Your task to perform on an android device: Search for Mexican restaurants on Maps Image 0: 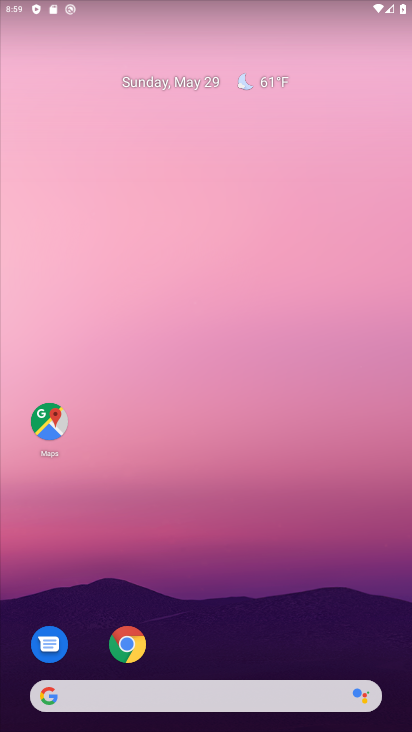
Step 0: drag from (242, 590) to (189, 47)
Your task to perform on an android device: Search for Mexican restaurants on Maps Image 1: 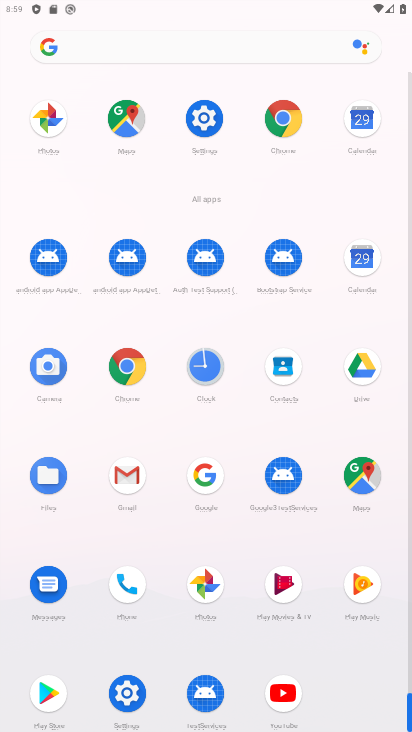
Step 1: drag from (6, 624) to (7, 255)
Your task to perform on an android device: Search for Mexican restaurants on Maps Image 2: 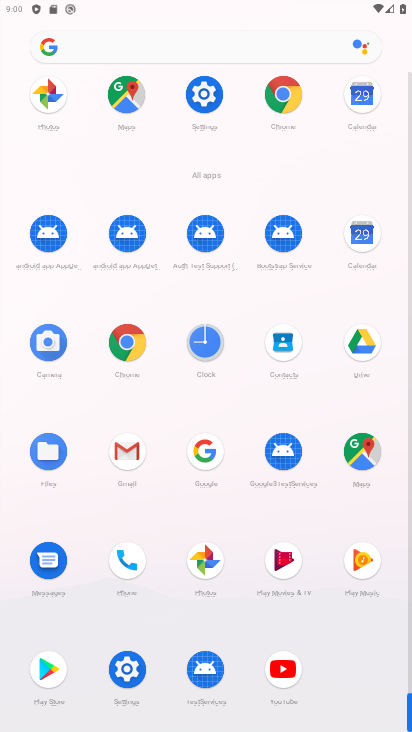
Step 2: click (360, 449)
Your task to perform on an android device: Search for Mexican restaurants on Maps Image 3: 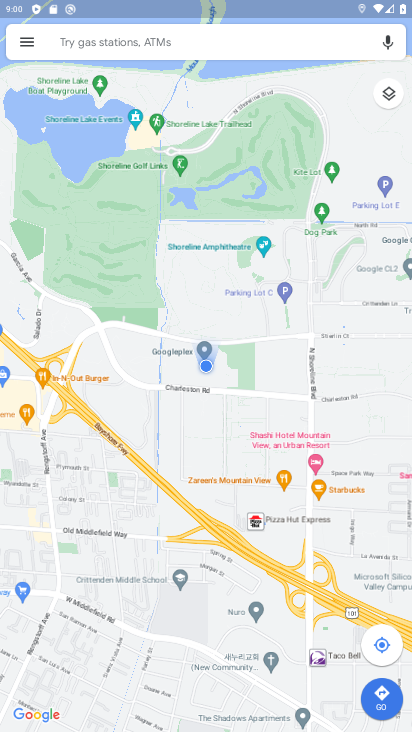
Step 3: click (239, 37)
Your task to perform on an android device: Search for Mexican restaurants on Maps Image 4: 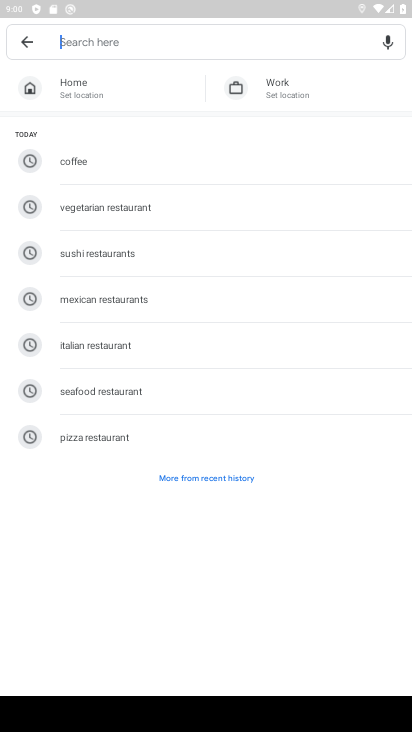
Step 4: click (126, 314)
Your task to perform on an android device: Search for Mexican restaurants on Maps Image 5: 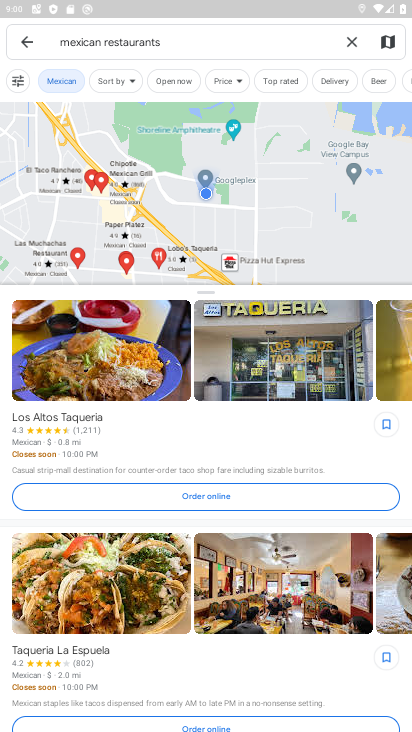
Step 5: task complete